Your task to perform on an android device: Open sound settings Image 0: 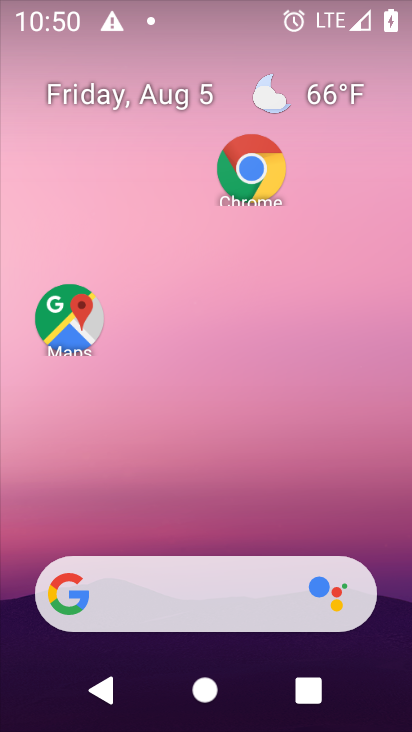
Step 0: drag from (192, 468) to (163, 127)
Your task to perform on an android device: Open sound settings Image 1: 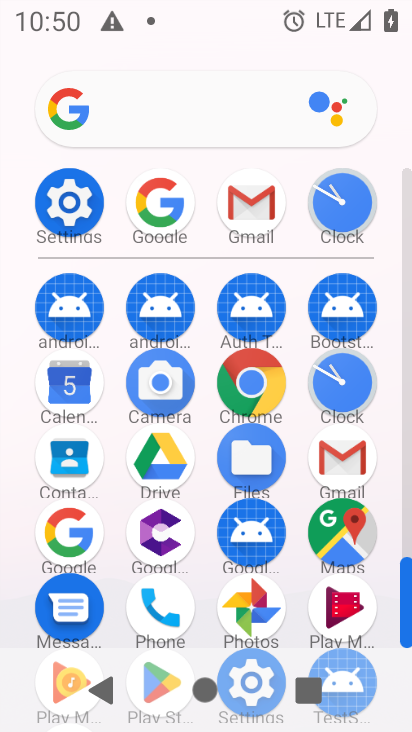
Step 1: click (86, 212)
Your task to perform on an android device: Open sound settings Image 2: 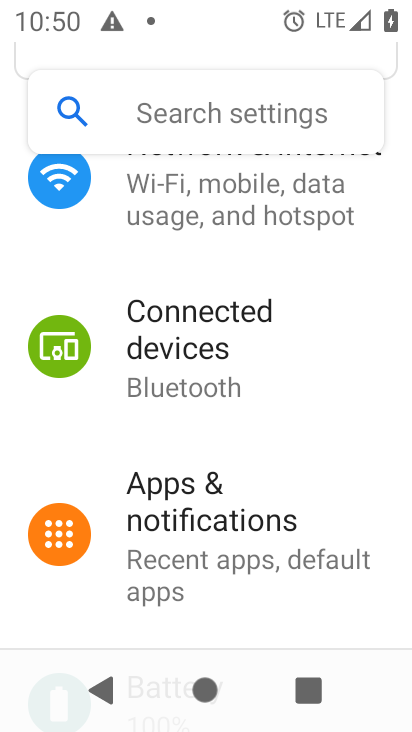
Step 2: drag from (214, 554) to (213, 239)
Your task to perform on an android device: Open sound settings Image 3: 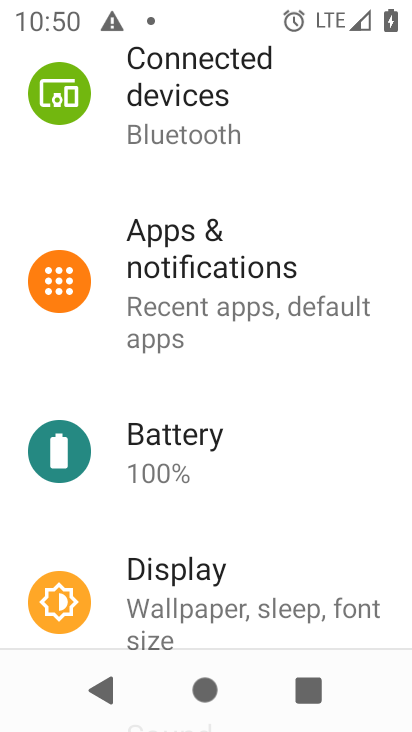
Step 3: drag from (224, 556) to (190, 194)
Your task to perform on an android device: Open sound settings Image 4: 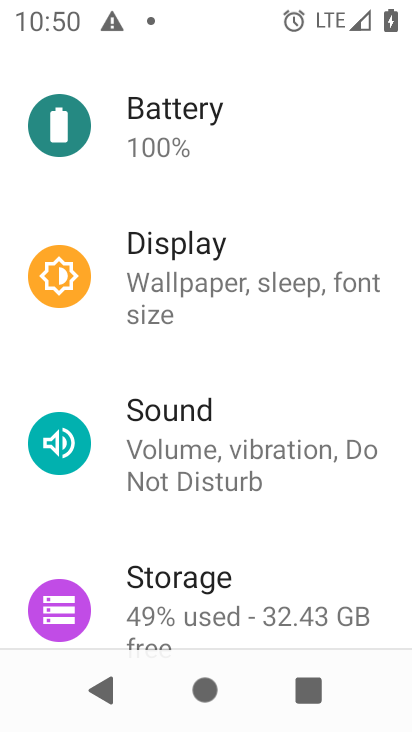
Step 4: click (201, 479)
Your task to perform on an android device: Open sound settings Image 5: 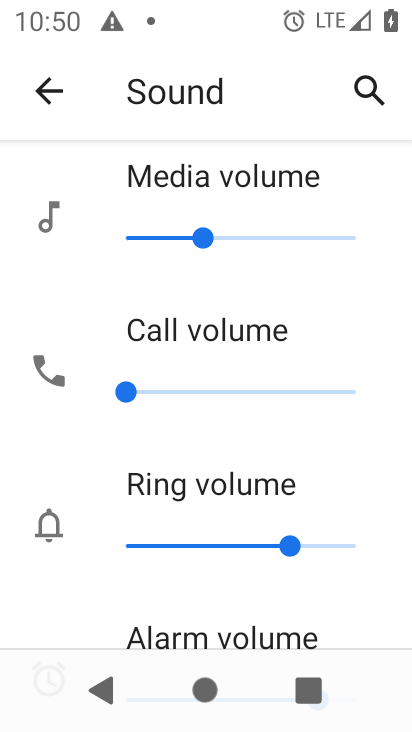
Step 5: task complete